Your task to perform on an android device: Is it going to rain this weekend? Image 0: 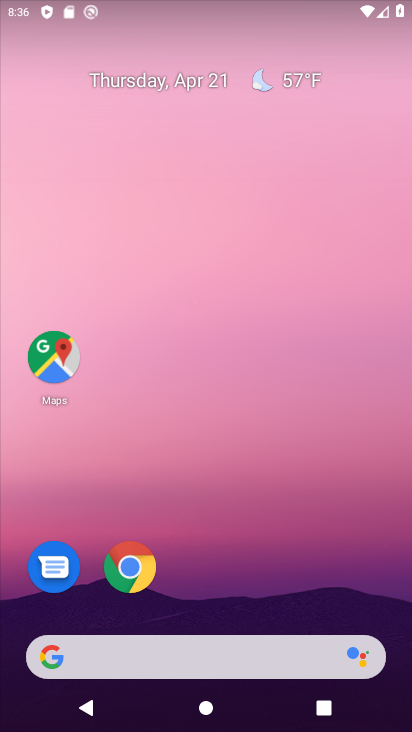
Step 0: drag from (183, 617) to (117, 36)
Your task to perform on an android device: Is it going to rain this weekend? Image 1: 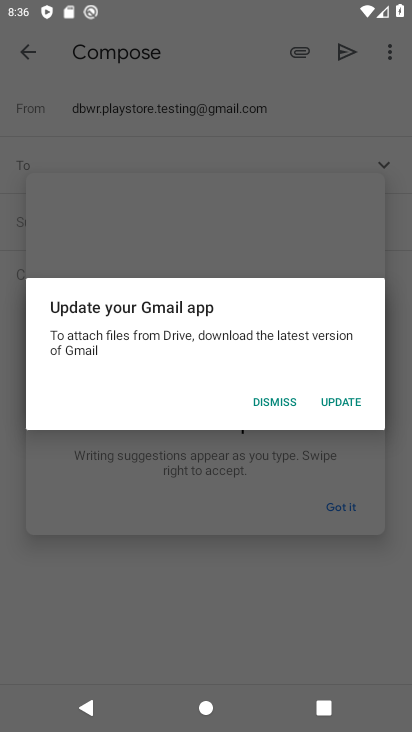
Step 1: press home button
Your task to perform on an android device: Is it going to rain this weekend? Image 2: 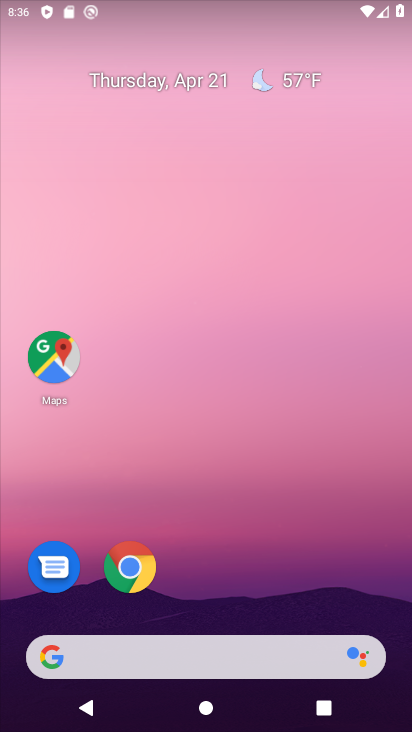
Step 2: click (251, 645)
Your task to perform on an android device: Is it going to rain this weekend? Image 3: 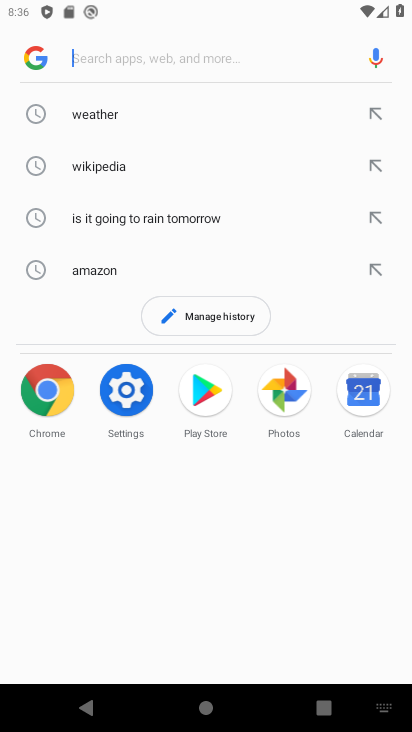
Step 3: click (102, 106)
Your task to perform on an android device: Is it going to rain this weekend? Image 4: 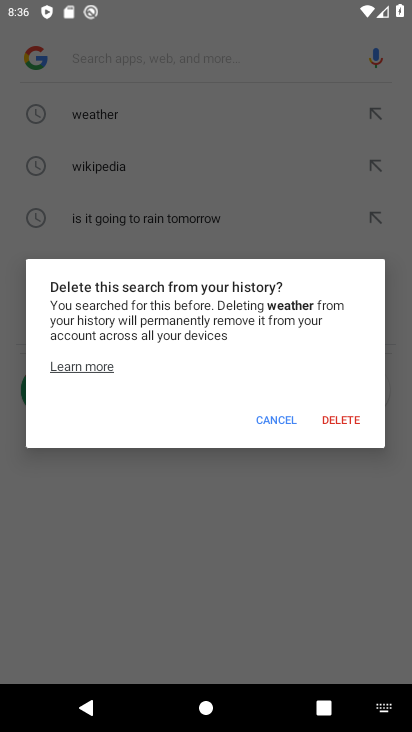
Step 4: click (282, 426)
Your task to perform on an android device: Is it going to rain this weekend? Image 5: 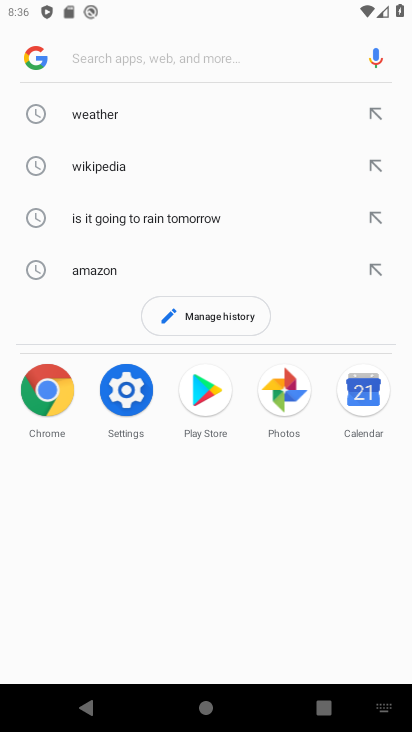
Step 5: click (29, 120)
Your task to perform on an android device: Is it going to rain this weekend? Image 6: 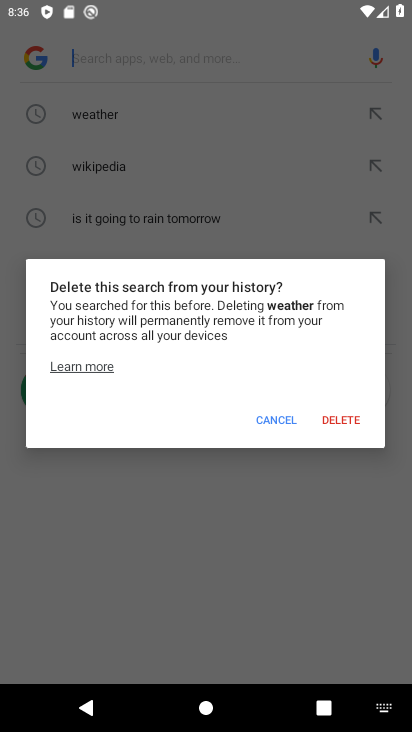
Step 6: click (265, 421)
Your task to perform on an android device: Is it going to rain this weekend? Image 7: 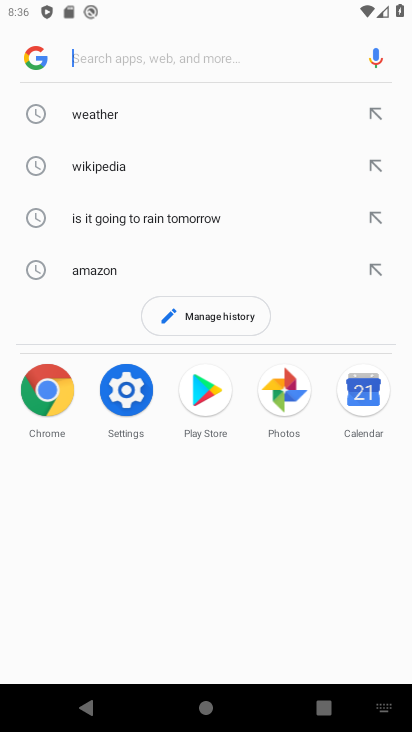
Step 7: click (95, 106)
Your task to perform on an android device: Is it going to rain this weekend? Image 8: 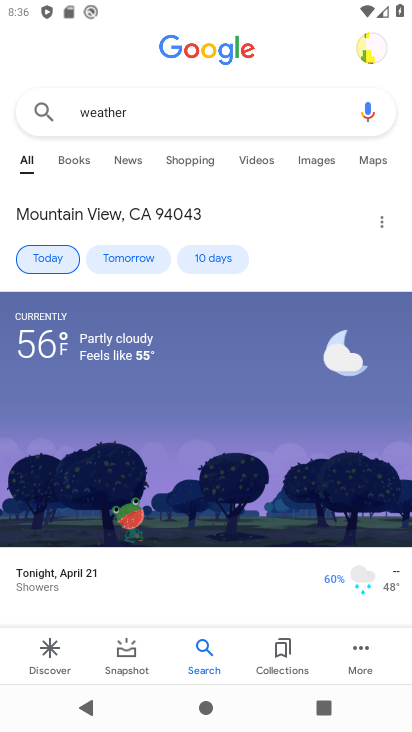
Step 8: drag from (163, 438) to (140, 311)
Your task to perform on an android device: Is it going to rain this weekend? Image 9: 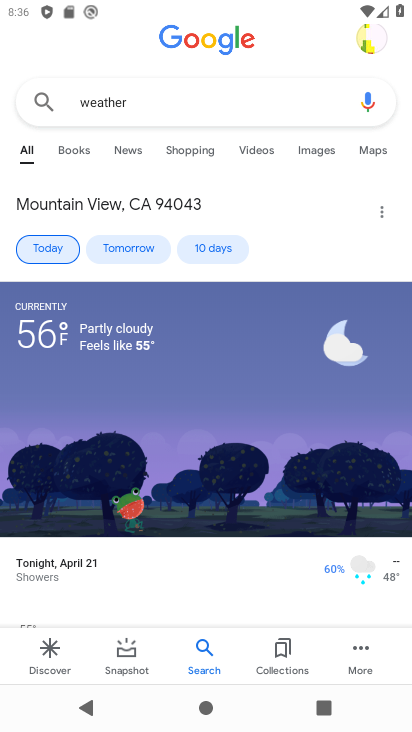
Step 9: click (216, 236)
Your task to perform on an android device: Is it going to rain this weekend? Image 10: 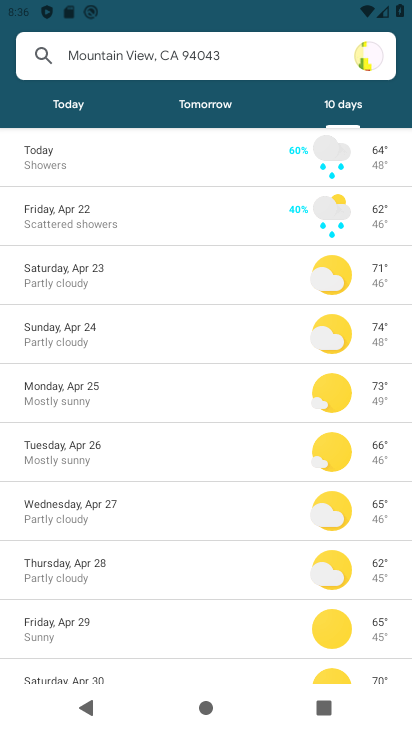
Step 10: drag from (305, 508) to (285, 337)
Your task to perform on an android device: Is it going to rain this weekend? Image 11: 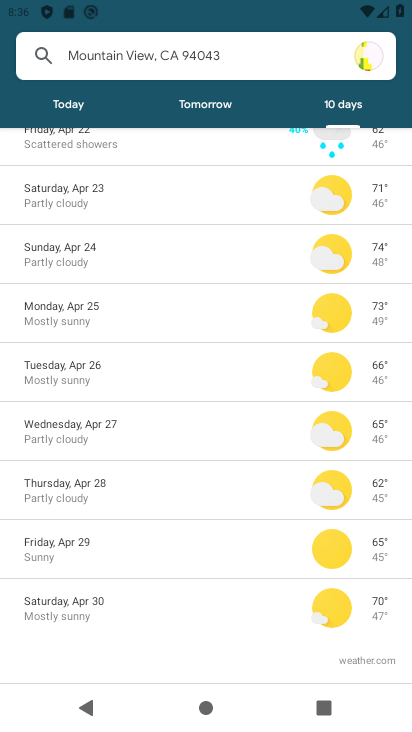
Step 11: click (145, 149)
Your task to perform on an android device: Is it going to rain this weekend? Image 12: 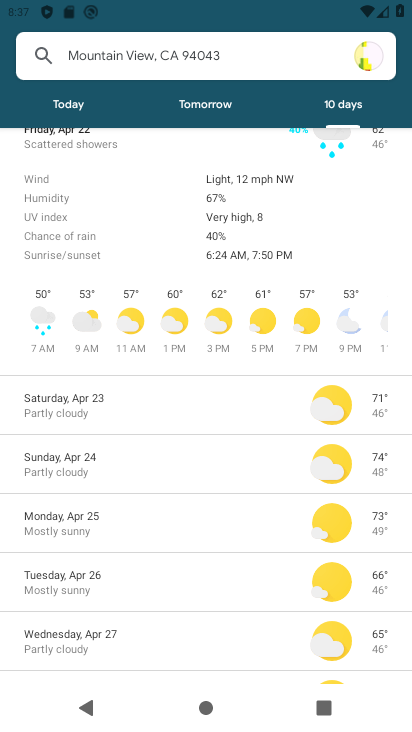
Step 12: task complete